Your task to perform on an android device: Go to Reddit.com Image 0: 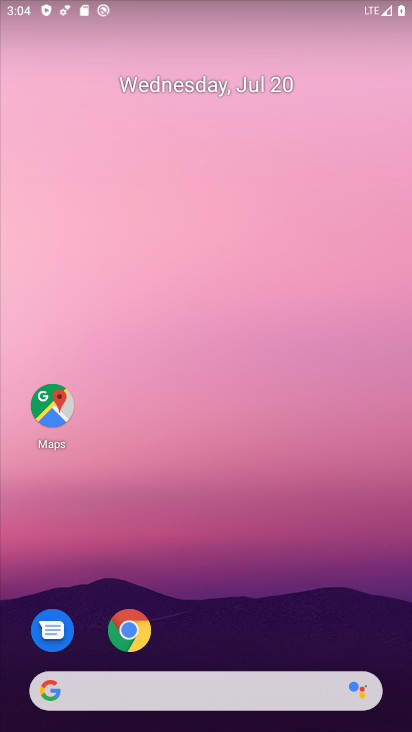
Step 0: click (36, 692)
Your task to perform on an android device: Go to Reddit.com Image 1: 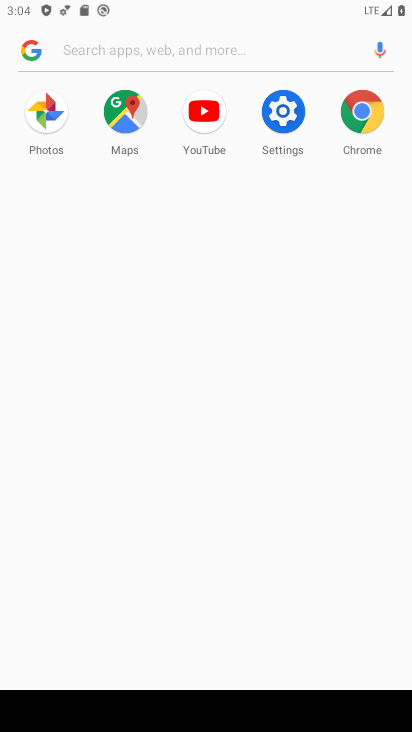
Step 1: type "Reddit.com"
Your task to perform on an android device: Go to Reddit.com Image 2: 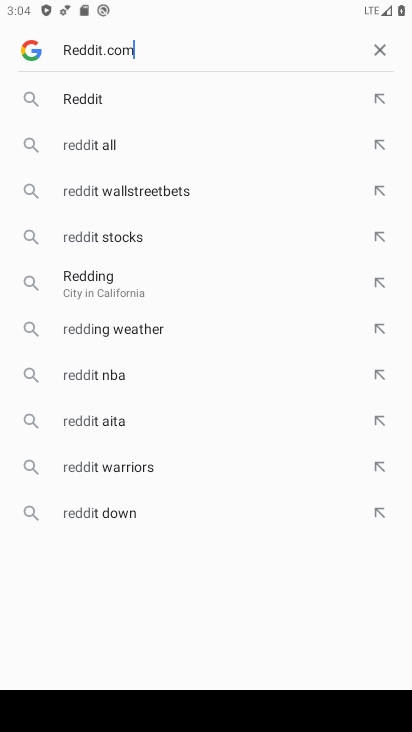
Step 2: press enter
Your task to perform on an android device: Go to Reddit.com Image 3: 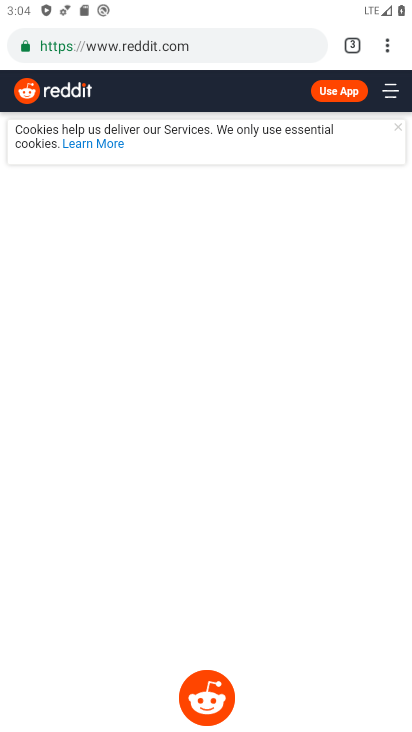
Step 3: task complete